Your task to perform on an android device: Open the Play Movies app and select the watchlist tab. Image 0: 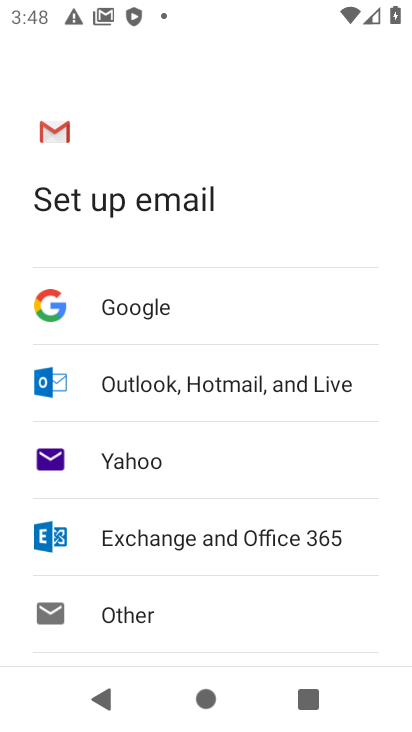
Step 0: press home button
Your task to perform on an android device: Open the Play Movies app and select the watchlist tab. Image 1: 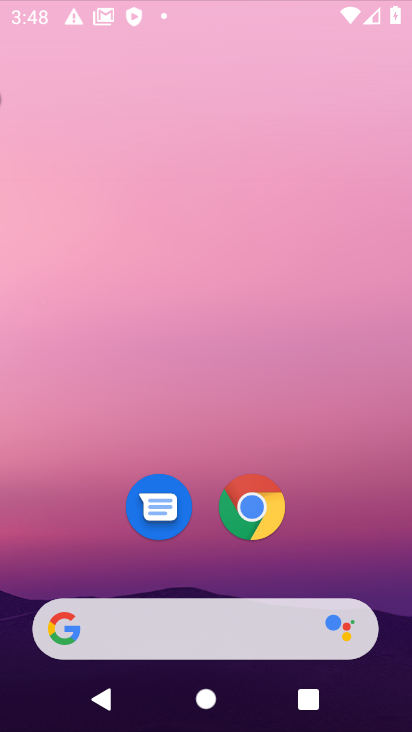
Step 1: task complete